Your task to perform on an android device: Go to wifi settings Image 0: 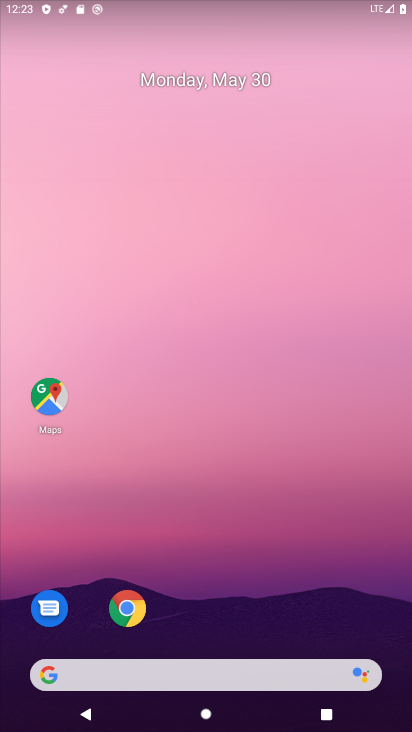
Step 0: drag from (206, 626) to (297, 111)
Your task to perform on an android device: Go to wifi settings Image 1: 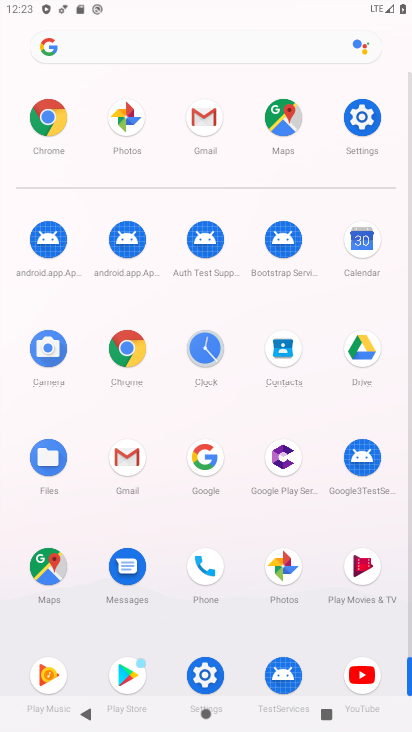
Step 1: click (375, 130)
Your task to perform on an android device: Go to wifi settings Image 2: 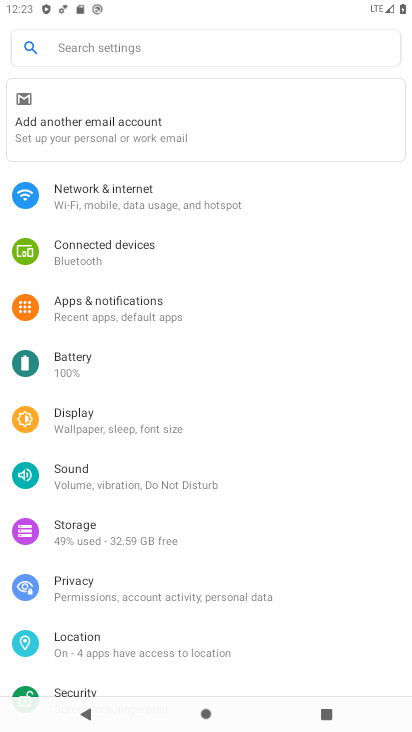
Step 2: click (184, 206)
Your task to perform on an android device: Go to wifi settings Image 3: 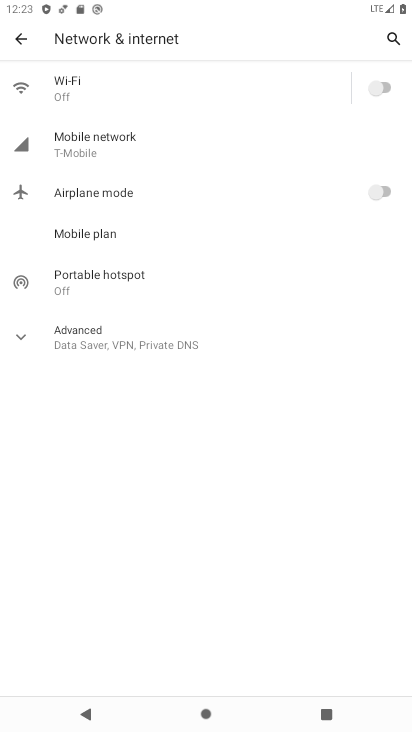
Step 3: click (155, 78)
Your task to perform on an android device: Go to wifi settings Image 4: 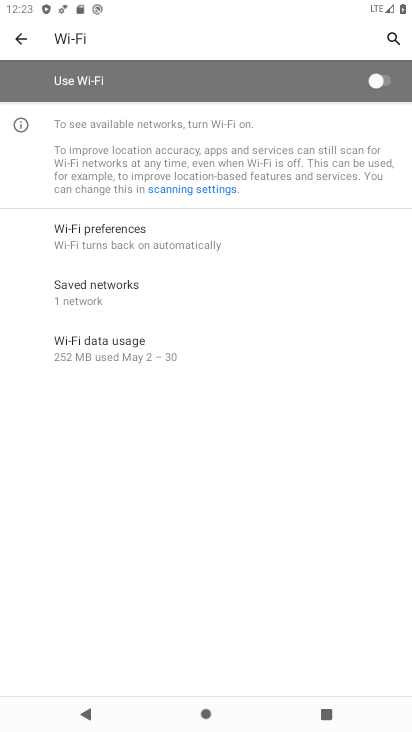
Step 4: task complete